Your task to perform on an android device: turn off improve location accuracy Image 0: 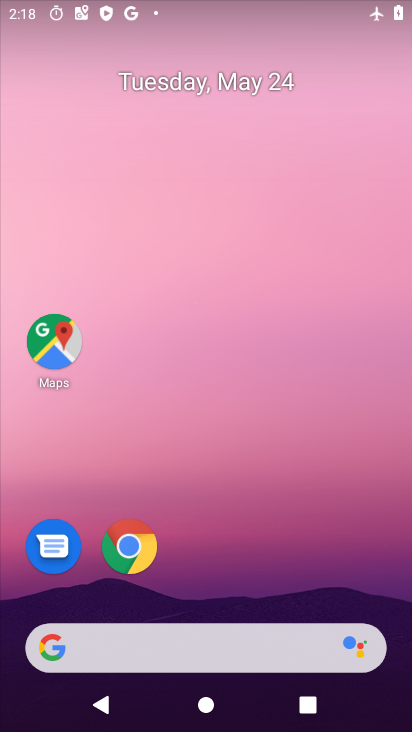
Step 0: drag from (206, 2) to (139, 9)
Your task to perform on an android device: turn off improve location accuracy Image 1: 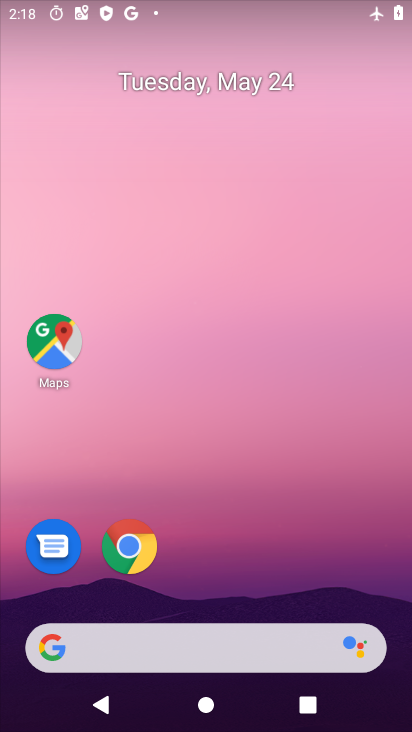
Step 1: drag from (210, 638) to (240, 108)
Your task to perform on an android device: turn off improve location accuracy Image 2: 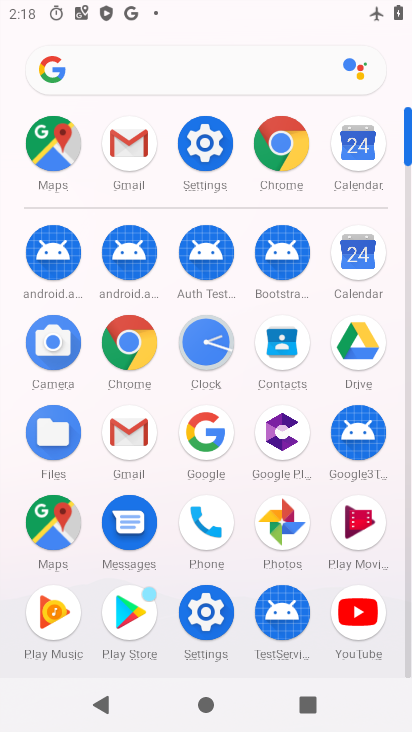
Step 2: click (195, 148)
Your task to perform on an android device: turn off improve location accuracy Image 3: 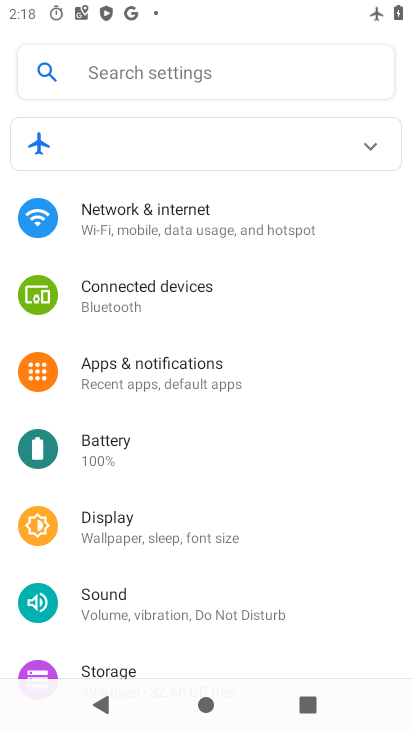
Step 3: drag from (179, 628) to (191, 252)
Your task to perform on an android device: turn off improve location accuracy Image 4: 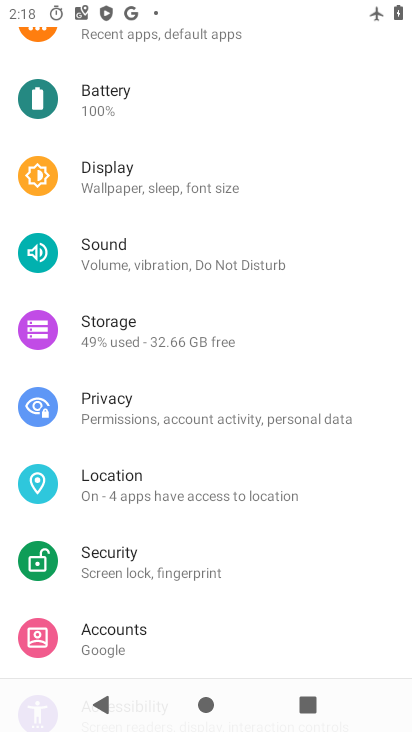
Step 4: click (159, 503)
Your task to perform on an android device: turn off improve location accuracy Image 5: 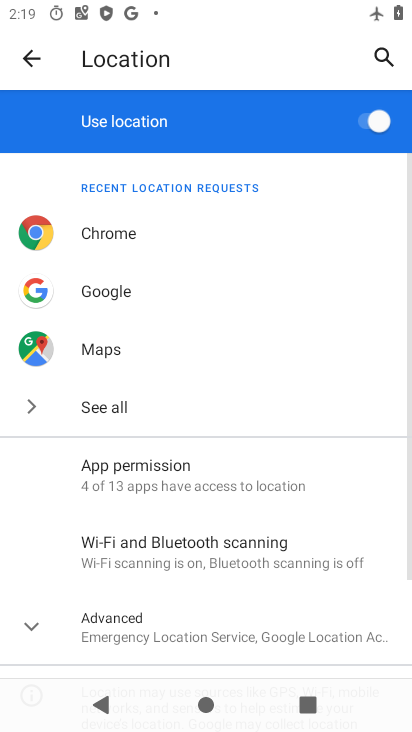
Step 5: click (157, 626)
Your task to perform on an android device: turn off improve location accuracy Image 6: 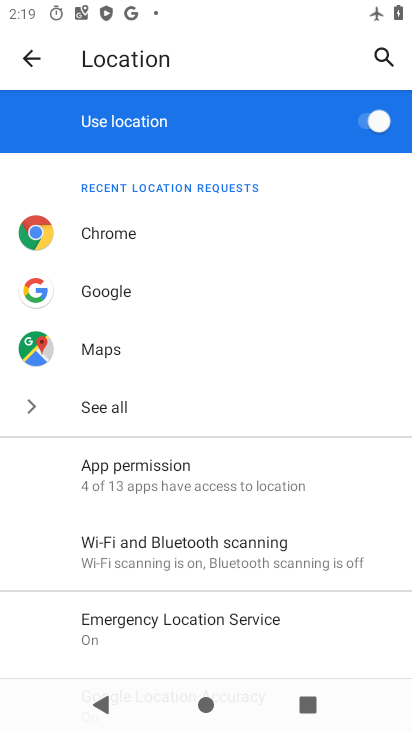
Step 6: drag from (157, 626) to (121, 217)
Your task to perform on an android device: turn off improve location accuracy Image 7: 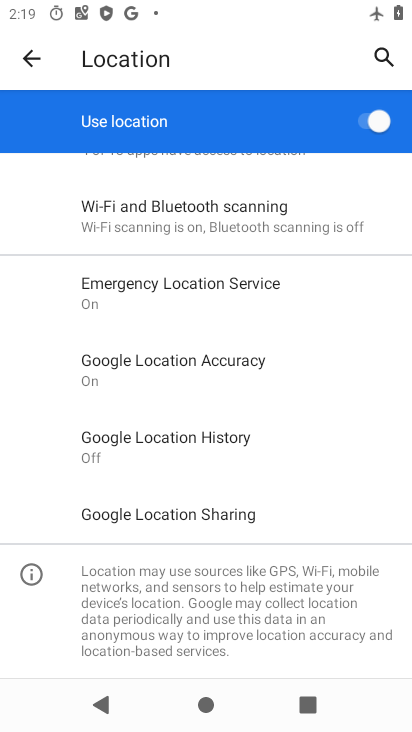
Step 7: click (160, 368)
Your task to perform on an android device: turn off improve location accuracy Image 8: 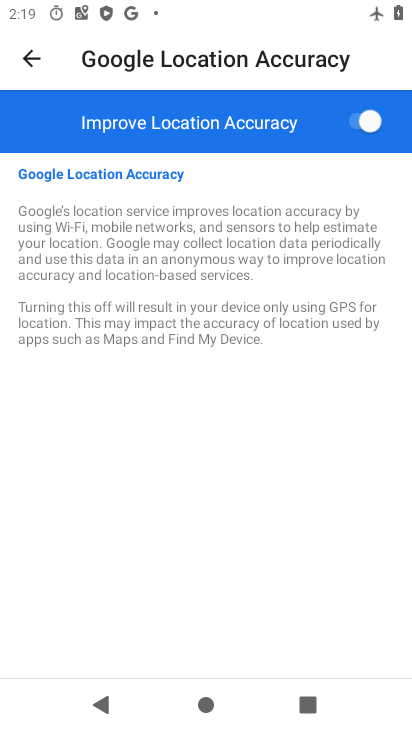
Step 8: click (365, 120)
Your task to perform on an android device: turn off improve location accuracy Image 9: 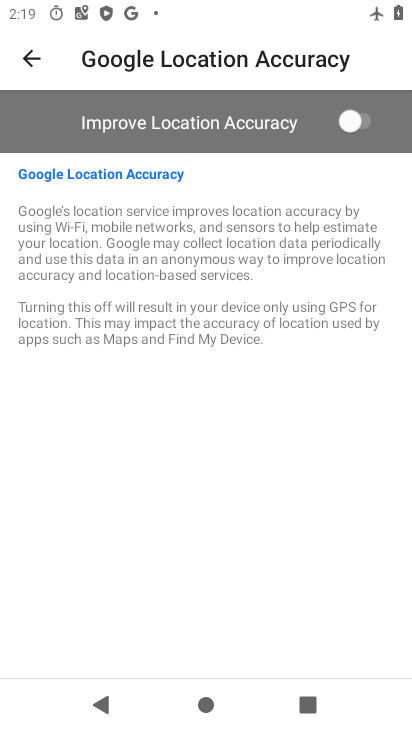
Step 9: task complete